Your task to perform on an android device: Go to CNN.com Image 0: 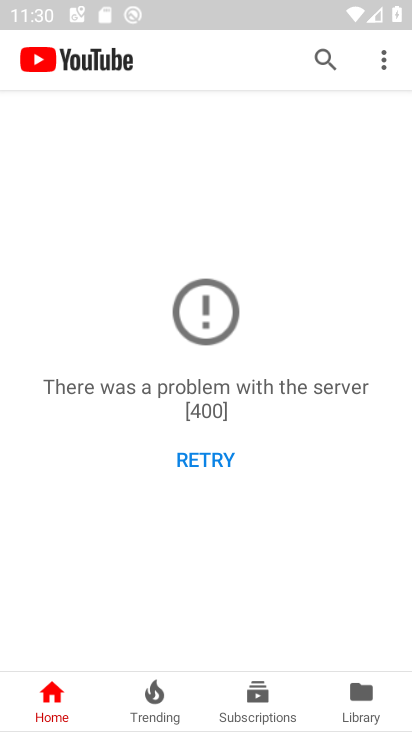
Step 0: press home button
Your task to perform on an android device: Go to CNN.com Image 1: 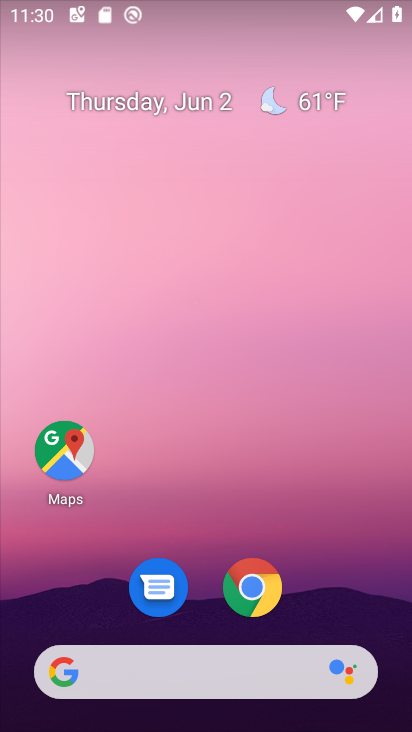
Step 1: click (248, 659)
Your task to perform on an android device: Go to CNN.com Image 2: 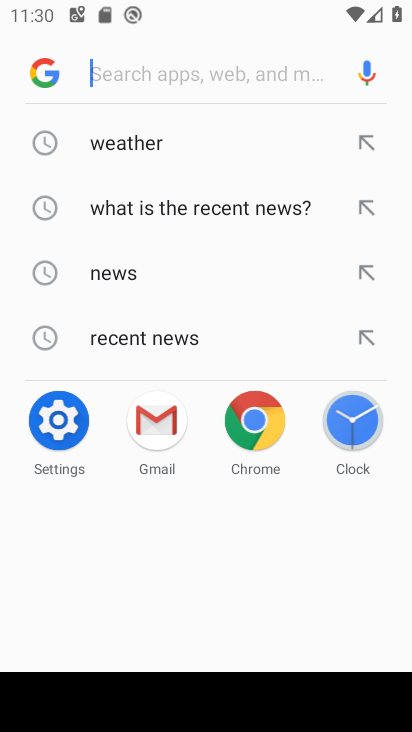
Step 2: type "cnn.com"
Your task to perform on an android device: Go to CNN.com Image 3: 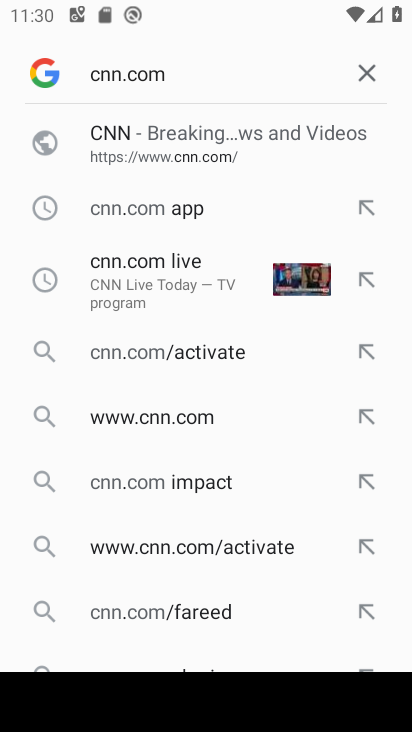
Step 3: click (268, 145)
Your task to perform on an android device: Go to CNN.com Image 4: 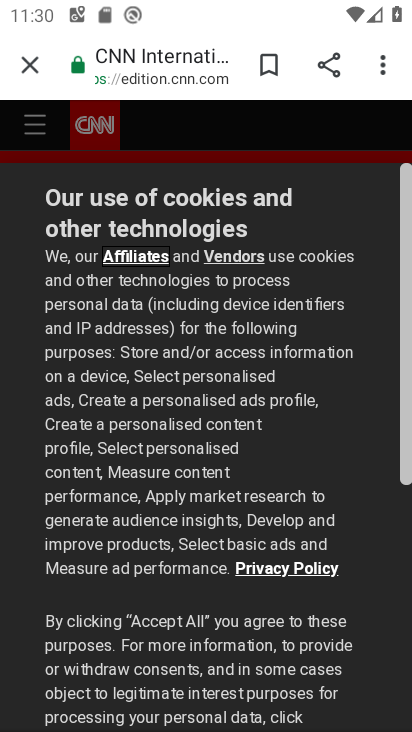
Step 4: task complete